Your task to perform on an android device: What's the weather going to be this weekend? Image 0: 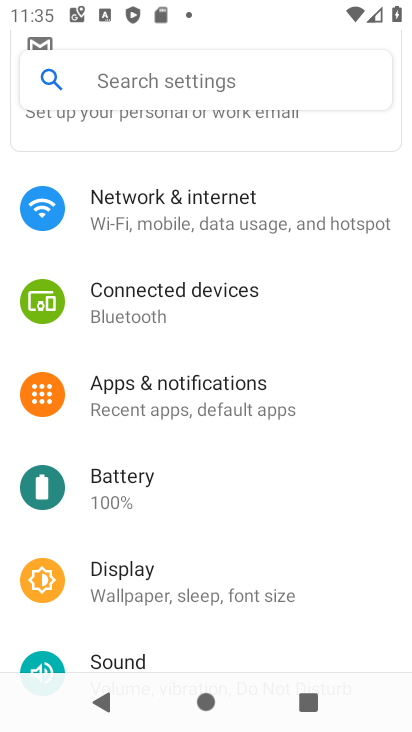
Step 0: press home button
Your task to perform on an android device: What's the weather going to be this weekend? Image 1: 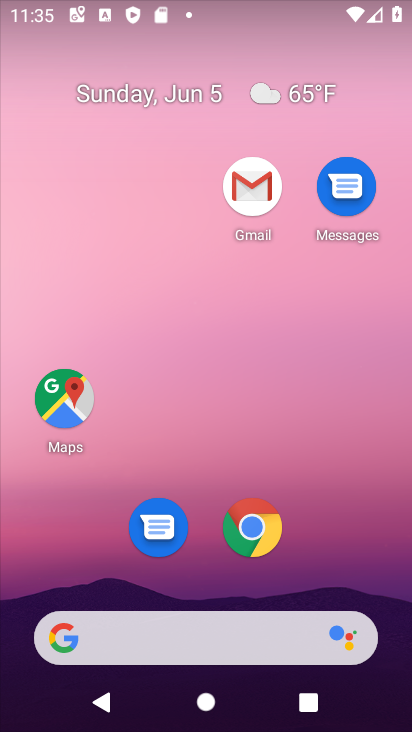
Step 1: click (256, 624)
Your task to perform on an android device: What's the weather going to be this weekend? Image 2: 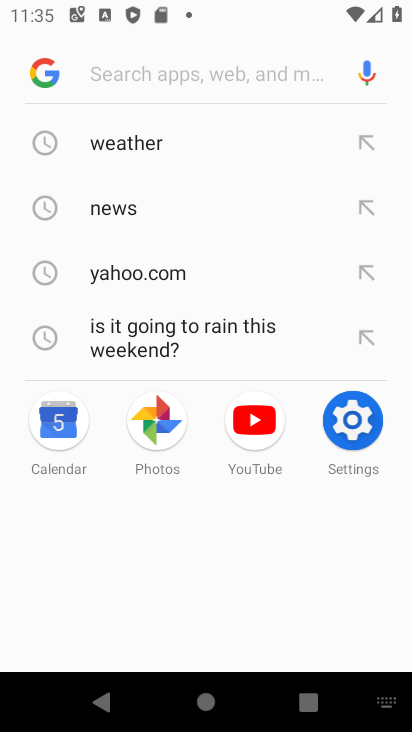
Step 2: click (201, 154)
Your task to perform on an android device: What's the weather going to be this weekend? Image 3: 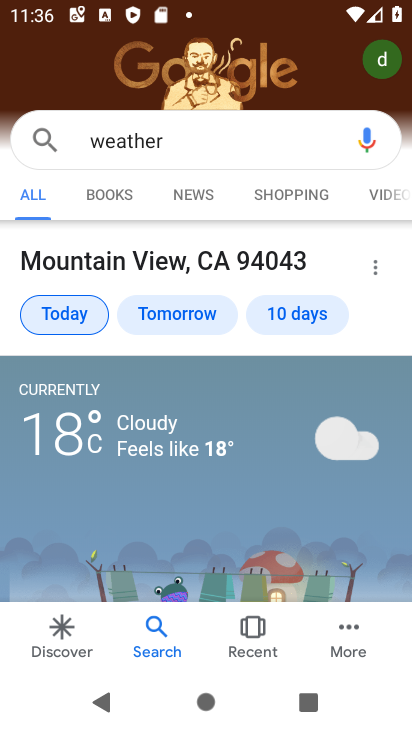
Step 3: click (275, 316)
Your task to perform on an android device: What's the weather going to be this weekend? Image 4: 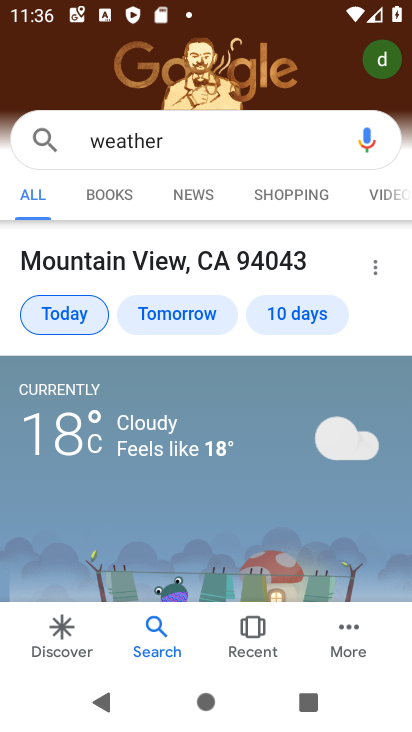
Step 4: click (275, 316)
Your task to perform on an android device: What's the weather going to be this weekend? Image 5: 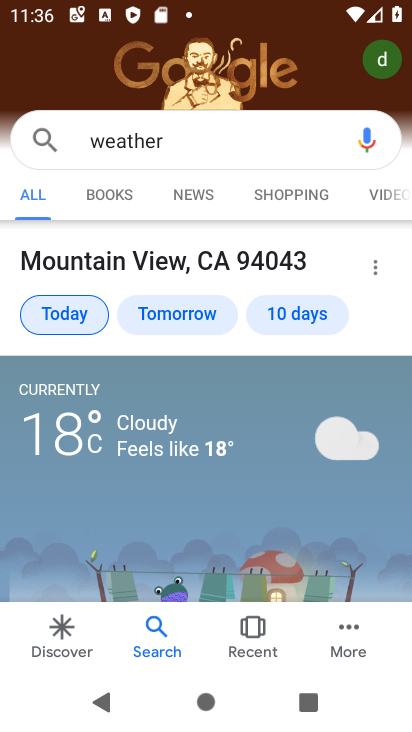
Step 5: click (286, 311)
Your task to perform on an android device: What's the weather going to be this weekend? Image 6: 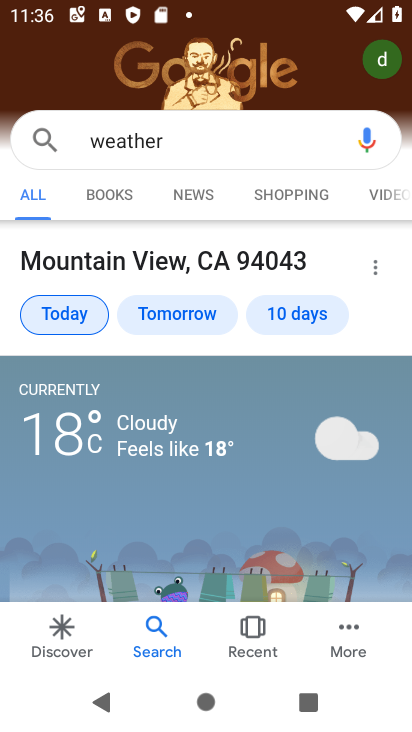
Step 6: click (271, 311)
Your task to perform on an android device: What's the weather going to be this weekend? Image 7: 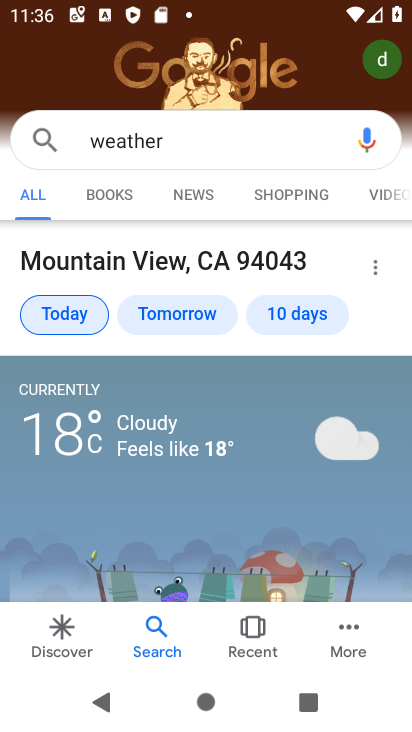
Step 7: click (271, 311)
Your task to perform on an android device: What's the weather going to be this weekend? Image 8: 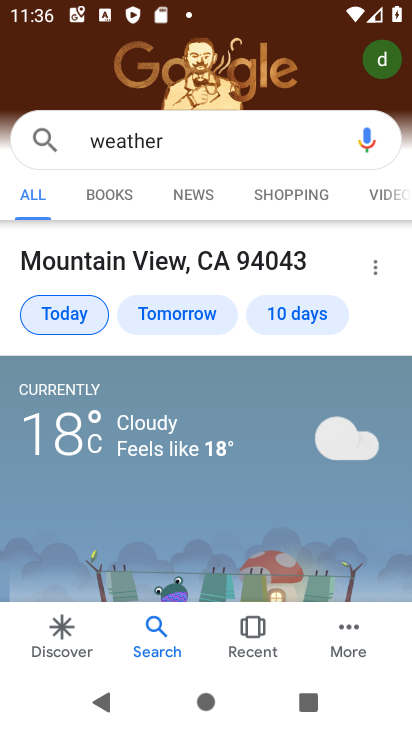
Step 8: click (271, 311)
Your task to perform on an android device: What's the weather going to be this weekend? Image 9: 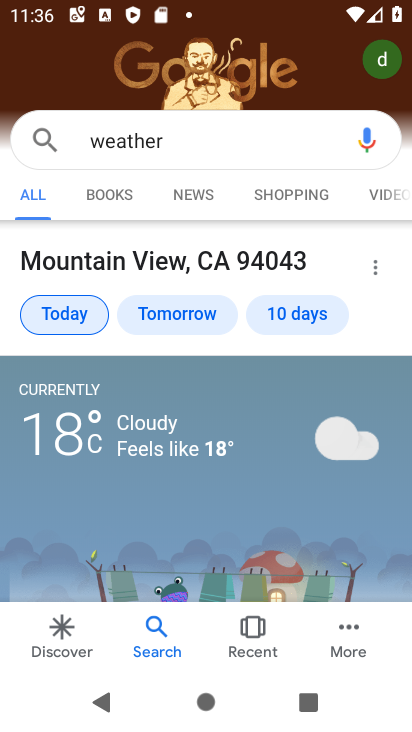
Step 9: click (271, 311)
Your task to perform on an android device: What's the weather going to be this weekend? Image 10: 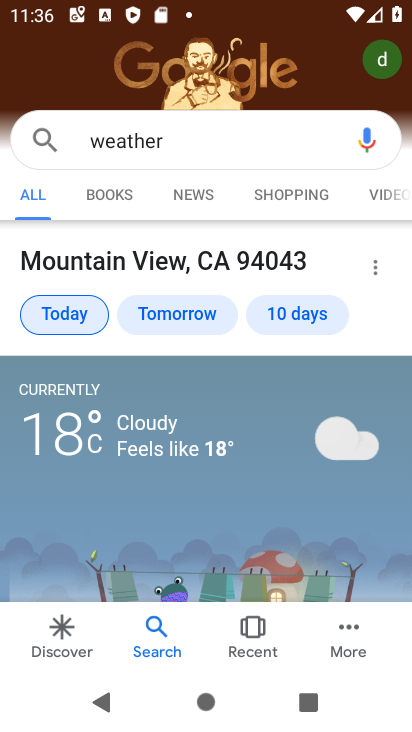
Step 10: click (271, 311)
Your task to perform on an android device: What's the weather going to be this weekend? Image 11: 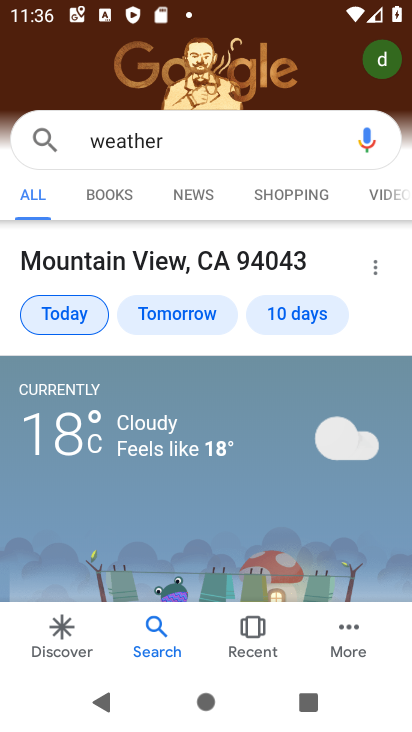
Step 11: click (271, 311)
Your task to perform on an android device: What's the weather going to be this weekend? Image 12: 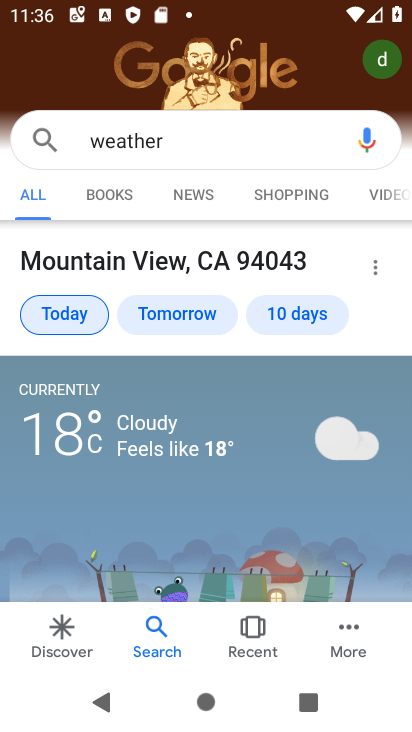
Step 12: task complete